Your task to perform on an android device: Find coffee shops on Maps Image 0: 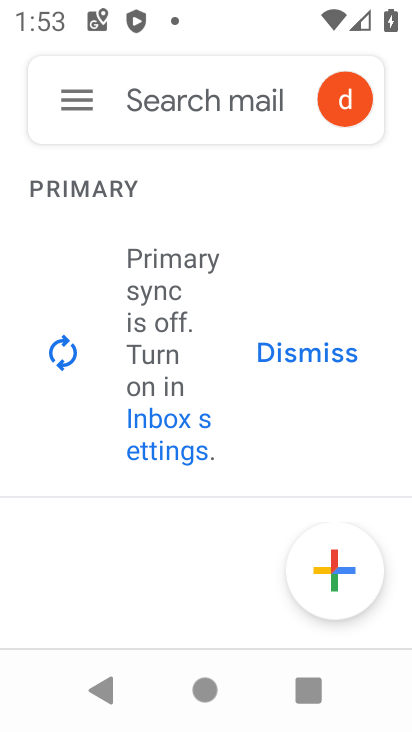
Step 0: press home button
Your task to perform on an android device: Find coffee shops on Maps Image 1: 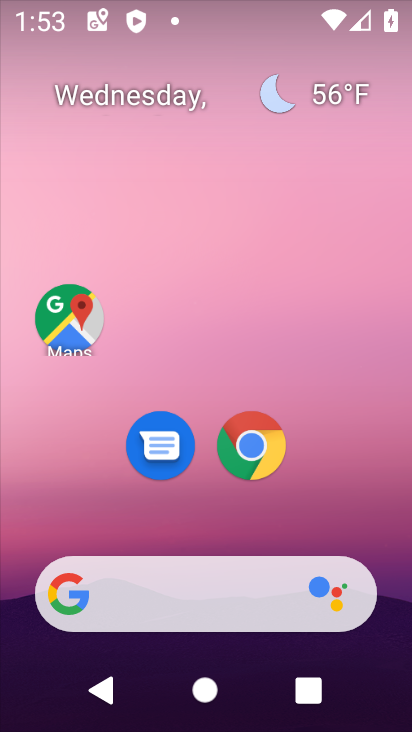
Step 1: click (77, 329)
Your task to perform on an android device: Find coffee shops on Maps Image 2: 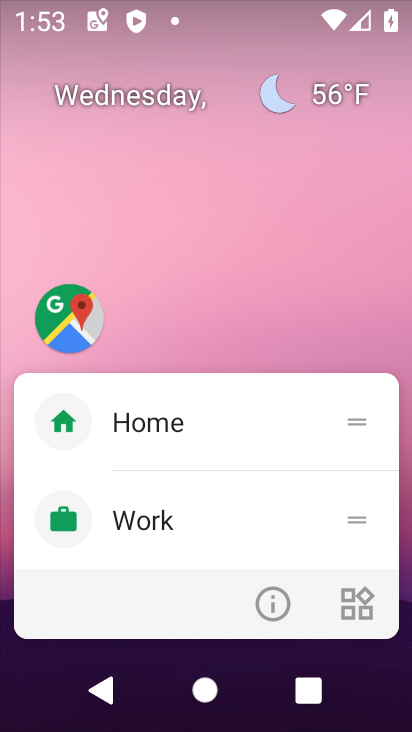
Step 2: click (75, 298)
Your task to perform on an android device: Find coffee shops on Maps Image 3: 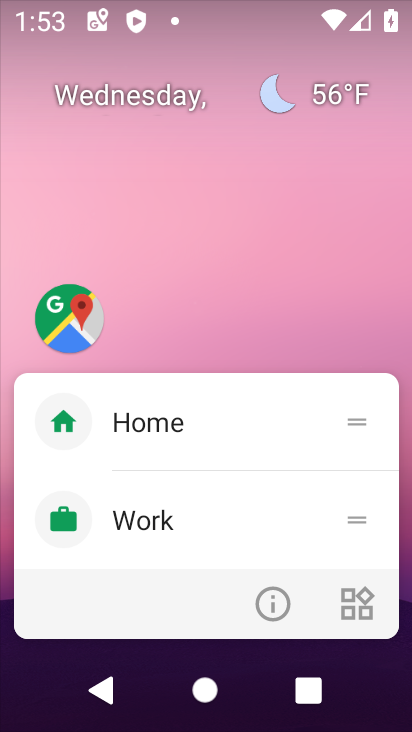
Step 3: click (74, 290)
Your task to perform on an android device: Find coffee shops on Maps Image 4: 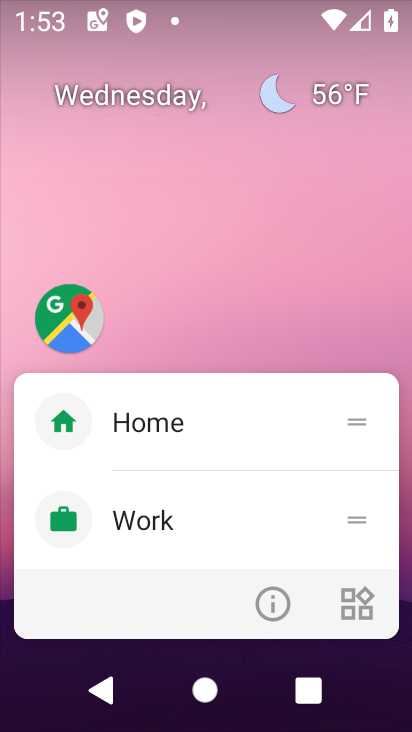
Step 4: click (79, 306)
Your task to perform on an android device: Find coffee shops on Maps Image 5: 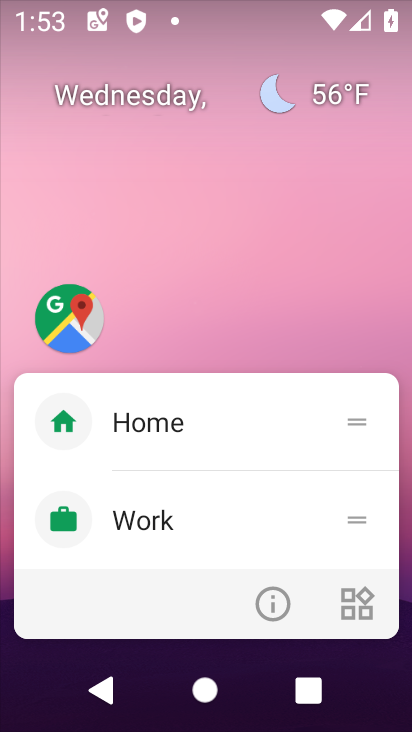
Step 5: click (74, 312)
Your task to perform on an android device: Find coffee shops on Maps Image 6: 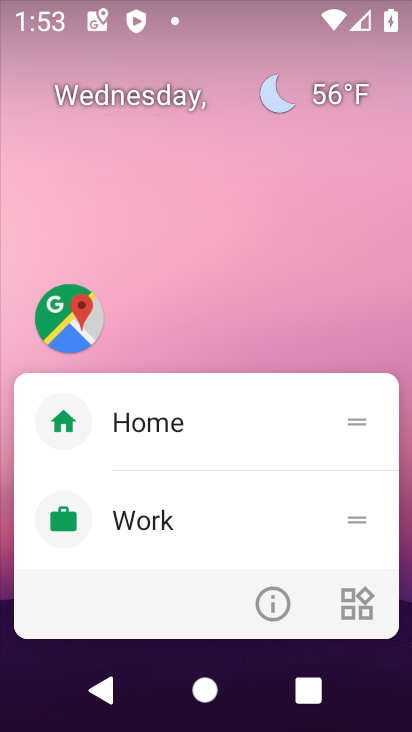
Step 6: click (74, 328)
Your task to perform on an android device: Find coffee shops on Maps Image 7: 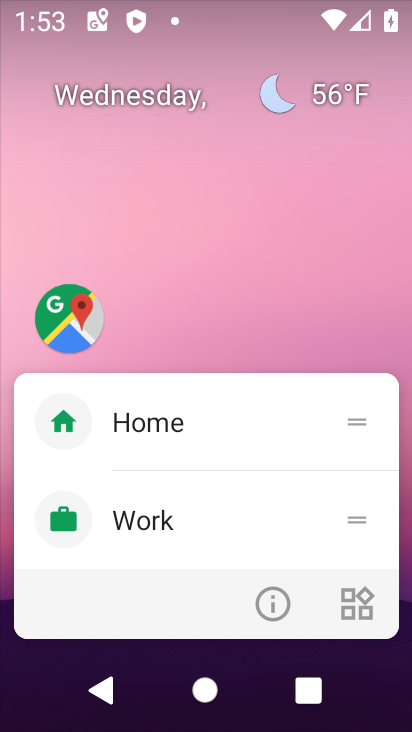
Step 7: click (49, 318)
Your task to perform on an android device: Find coffee shops on Maps Image 8: 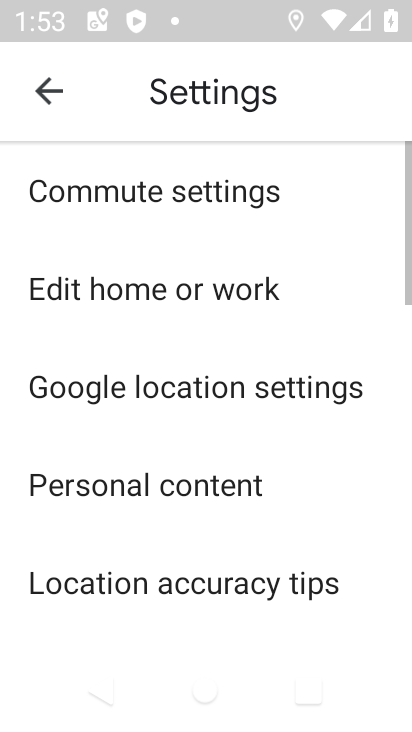
Step 8: click (47, 84)
Your task to perform on an android device: Find coffee shops on Maps Image 9: 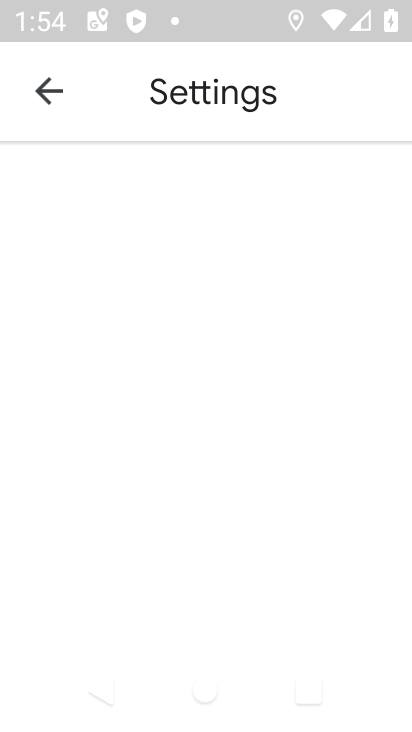
Step 9: click (47, 84)
Your task to perform on an android device: Find coffee shops on Maps Image 10: 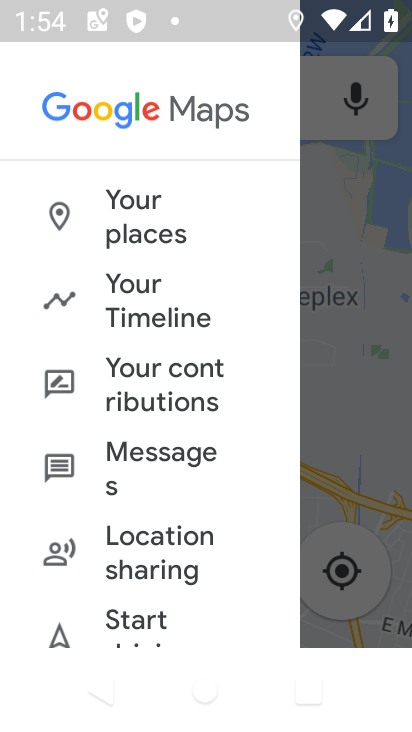
Step 10: click (348, 209)
Your task to perform on an android device: Find coffee shops on Maps Image 11: 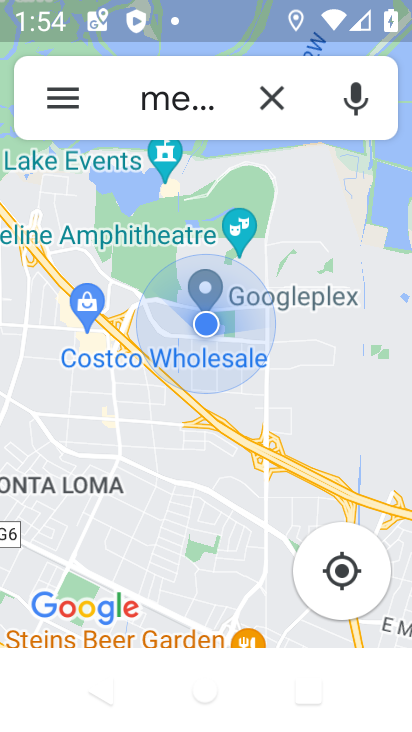
Step 11: click (256, 102)
Your task to perform on an android device: Find coffee shops on Maps Image 12: 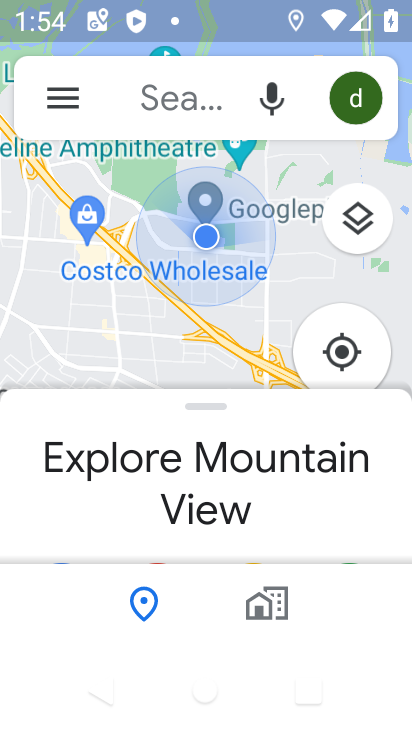
Step 12: click (180, 119)
Your task to perform on an android device: Find coffee shops on Maps Image 13: 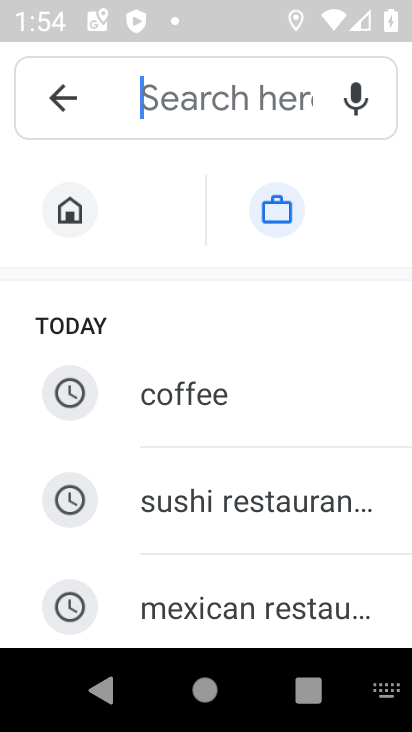
Step 13: click (169, 367)
Your task to perform on an android device: Find coffee shops on Maps Image 14: 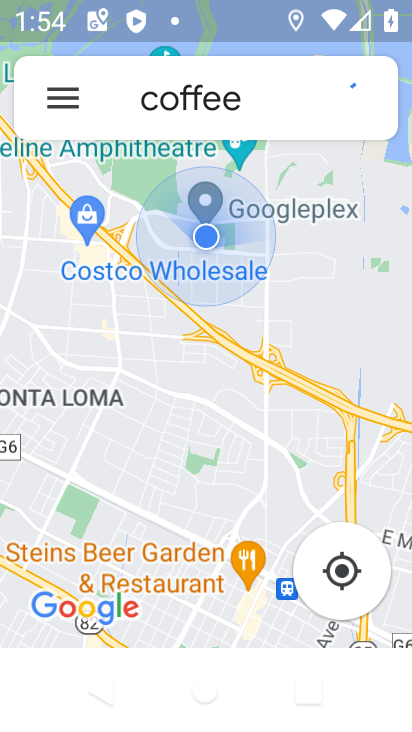
Step 14: task complete